Your task to perform on an android device: empty trash in google photos Image 0: 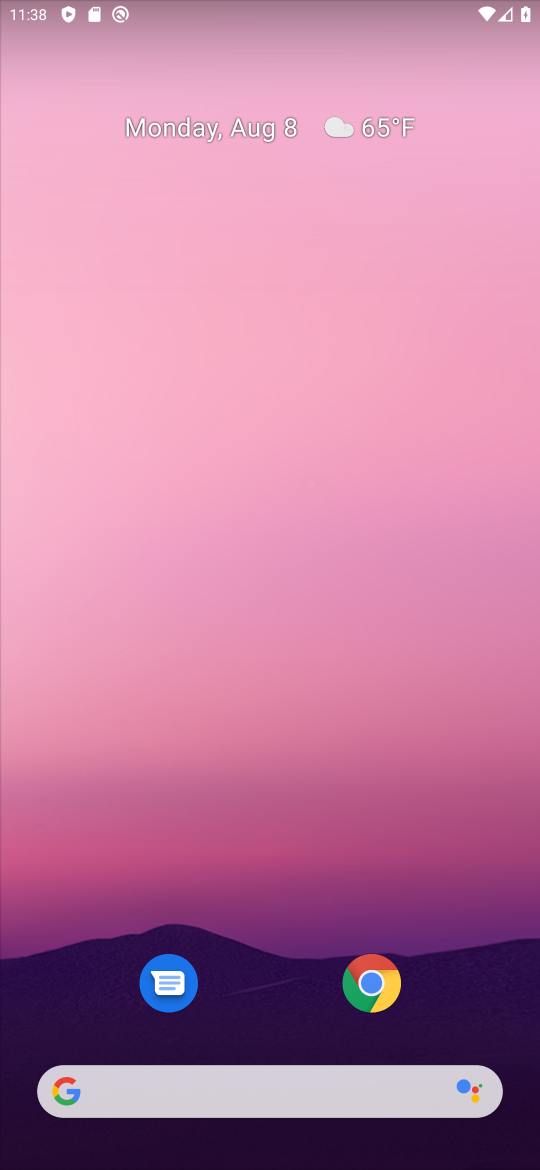
Step 0: drag from (314, 1055) to (227, 2)
Your task to perform on an android device: empty trash in google photos Image 1: 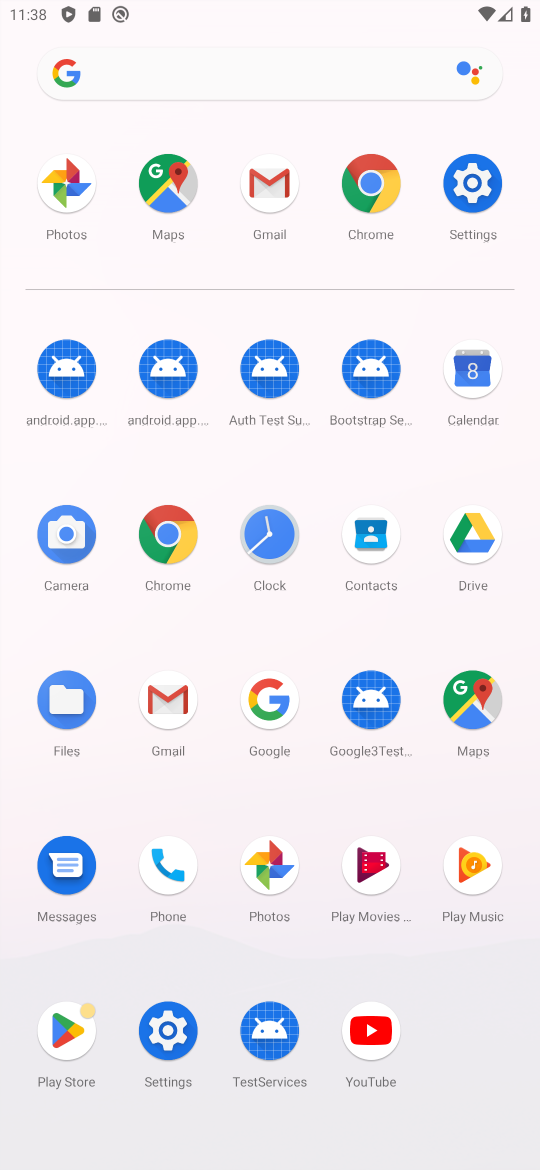
Step 1: click (42, 212)
Your task to perform on an android device: empty trash in google photos Image 2: 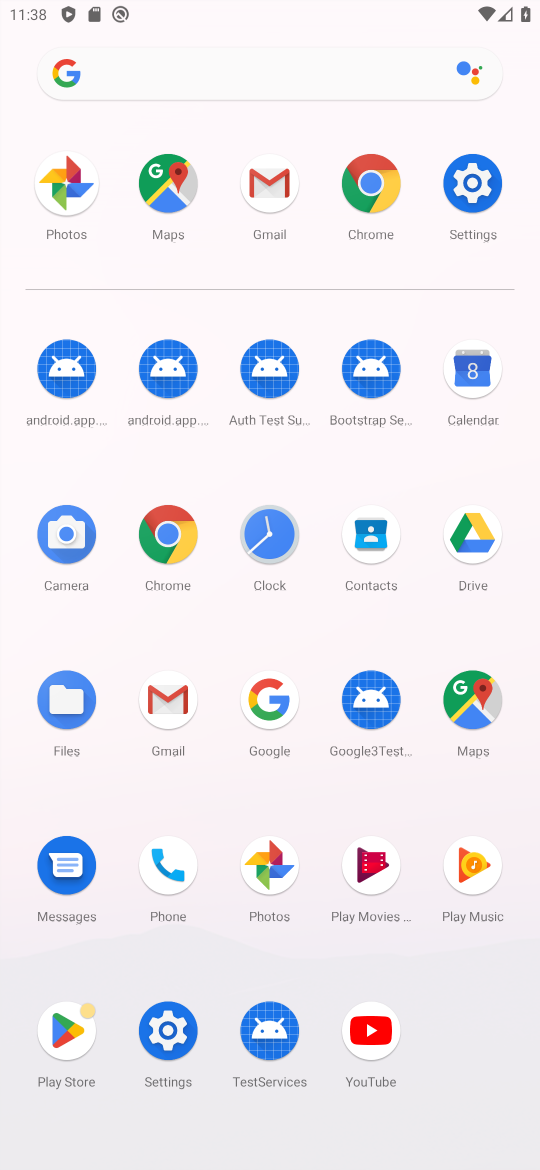
Step 2: task complete